Your task to perform on an android device: What's the weather? Image 0: 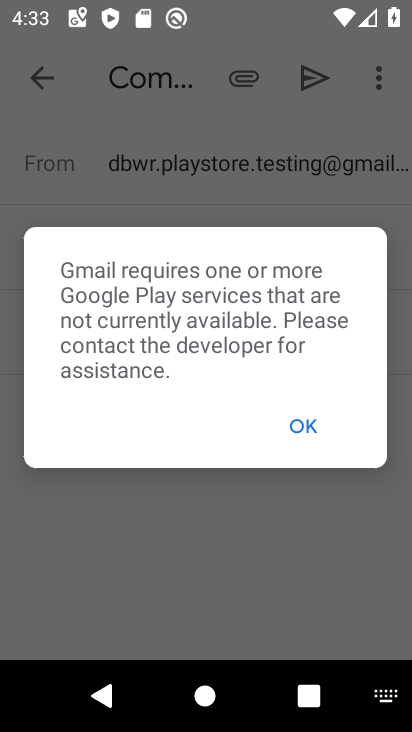
Step 0: click (304, 430)
Your task to perform on an android device: What's the weather? Image 1: 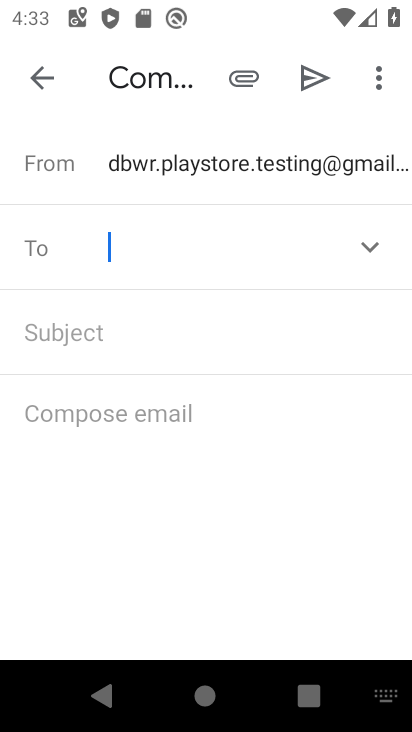
Step 1: press home button
Your task to perform on an android device: What's the weather? Image 2: 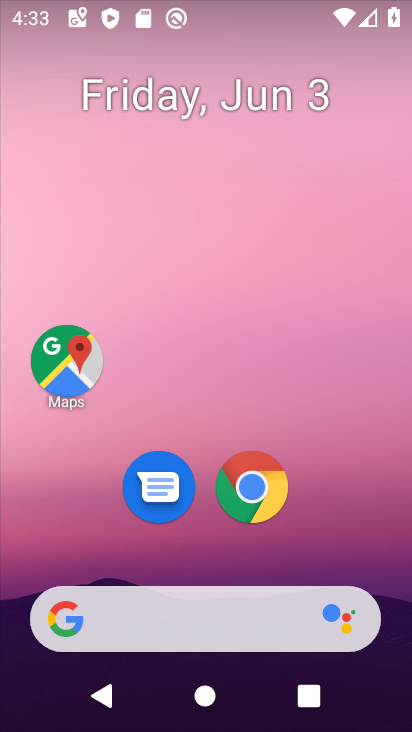
Step 2: drag from (253, 409) to (331, 9)
Your task to perform on an android device: What's the weather? Image 3: 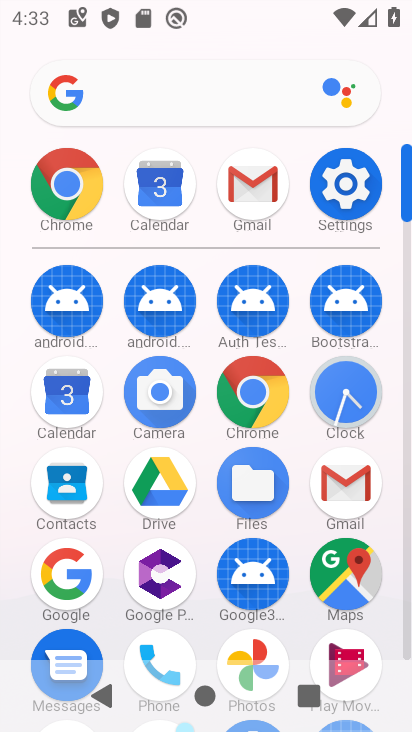
Step 3: click (137, 101)
Your task to perform on an android device: What's the weather? Image 4: 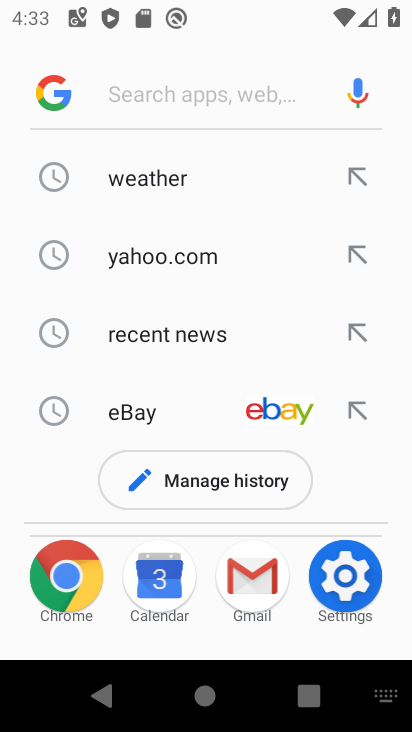
Step 4: click (124, 188)
Your task to perform on an android device: What's the weather? Image 5: 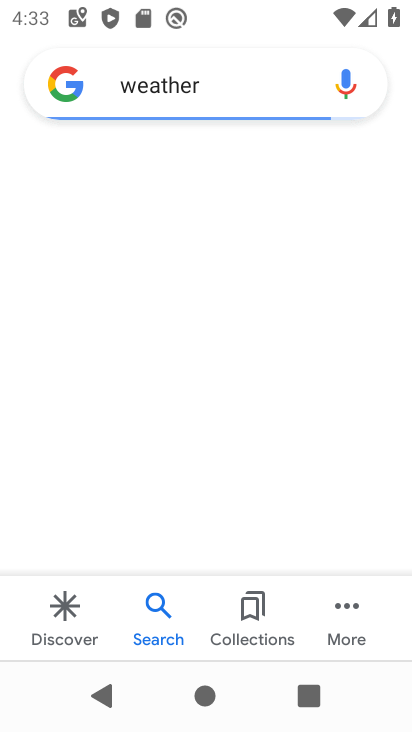
Step 5: task complete